Your task to perform on an android device: Open calendar and show me the first week of next month Image 0: 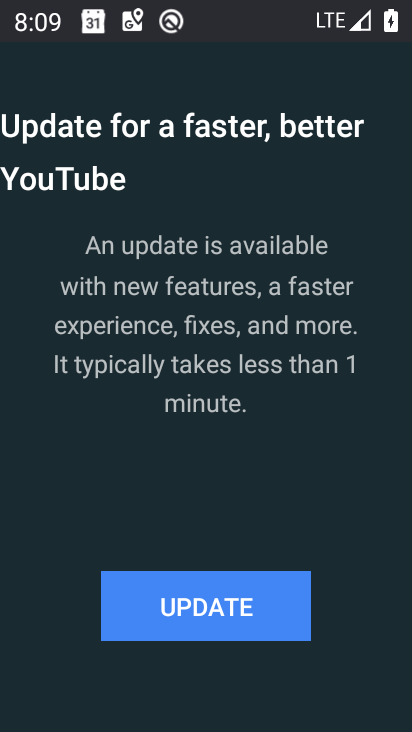
Step 0: press home button
Your task to perform on an android device: Open calendar and show me the first week of next month Image 1: 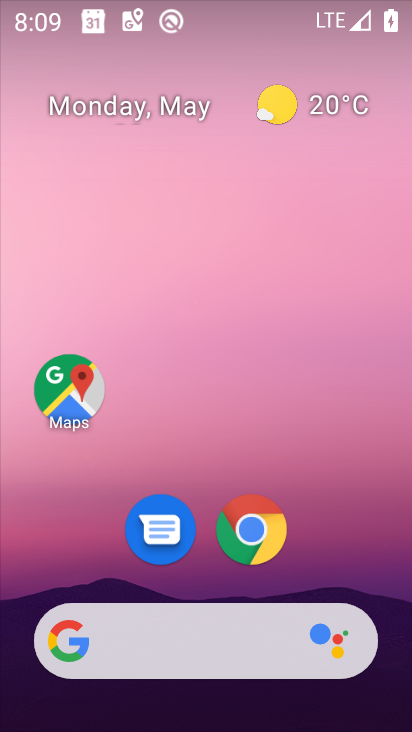
Step 1: drag from (25, 550) to (208, 80)
Your task to perform on an android device: Open calendar and show me the first week of next month Image 2: 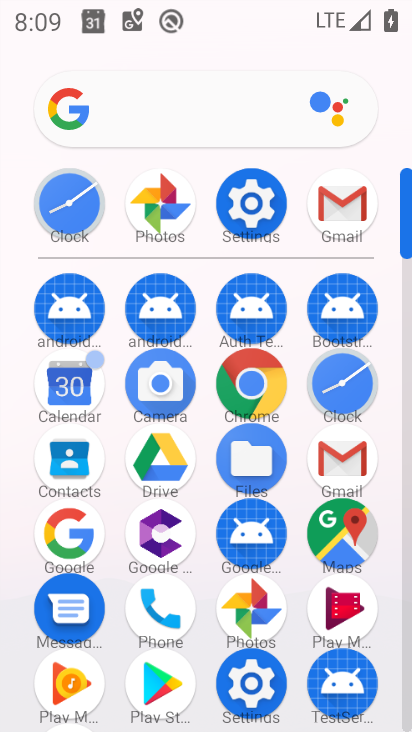
Step 2: click (49, 379)
Your task to perform on an android device: Open calendar and show me the first week of next month Image 3: 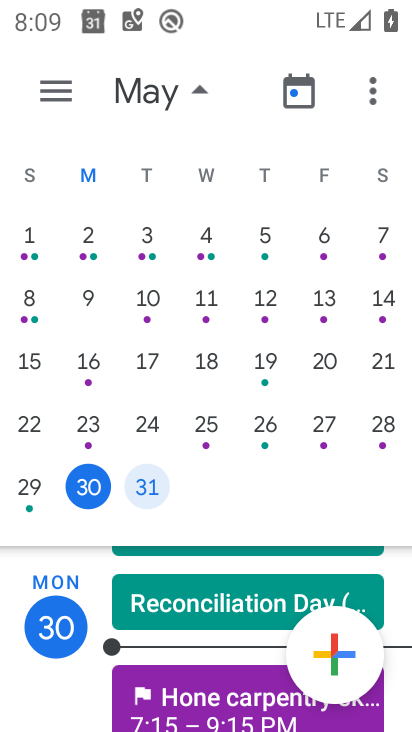
Step 3: drag from (409, 335) to (14, 228)
Your task to perform on an android device: Open calendar and show me the first week of next month Image 4: 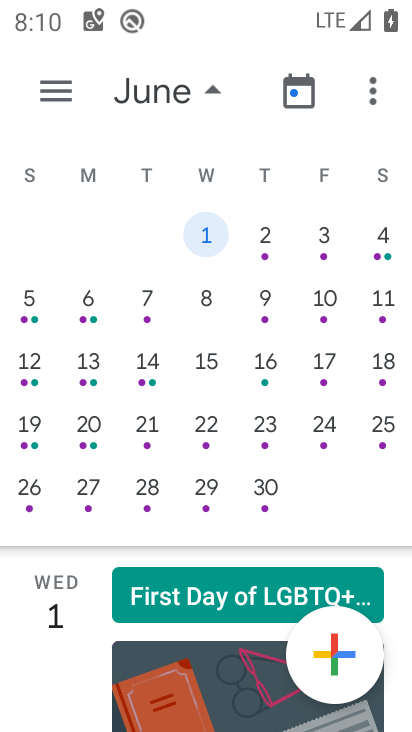
Step 4: click (264, 235)
Your task to perform on an android device: Open calendar and show me the first week of next month Image 5: 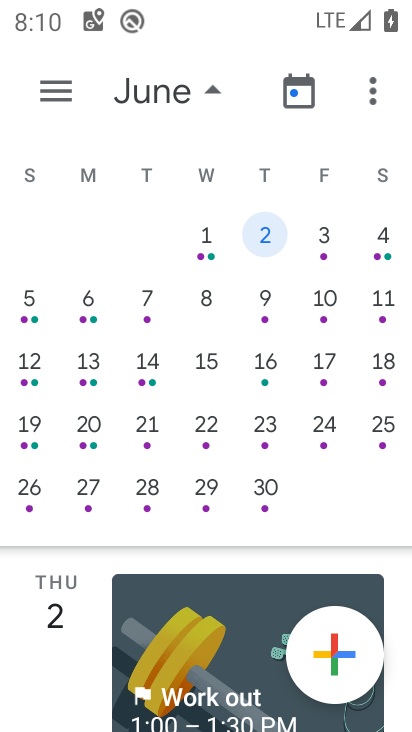
Step 5: click (328, 234)
Your task to perform on an android device: Open calendar and show me the first week of next month Image 6: 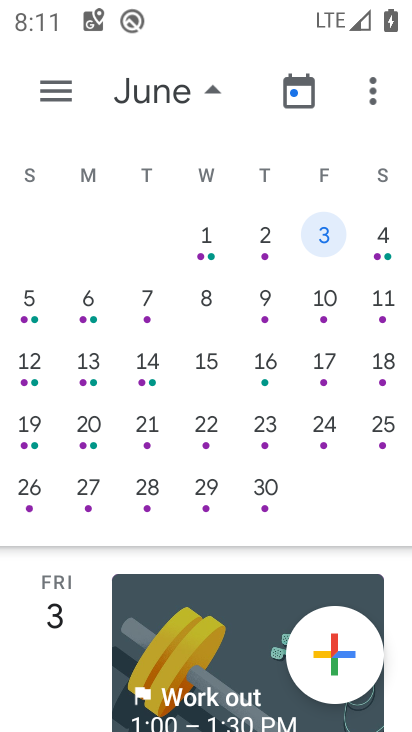
Step 6: task complete